Your task to perform on an android device: What is the news today? Image 0: 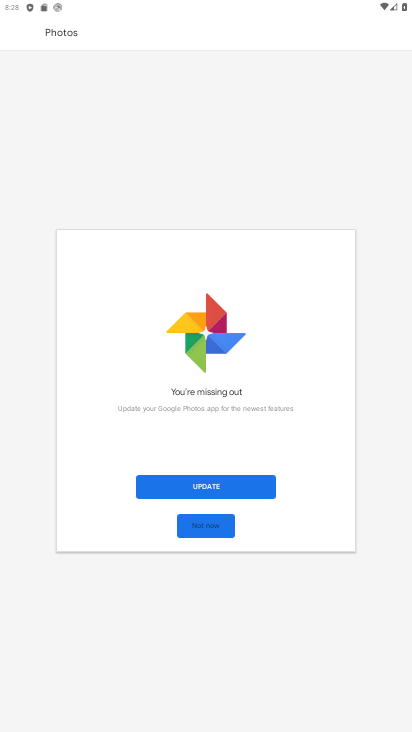
Step 0: press home button
Your task to perform on an android device: What is the news today? Image 1: 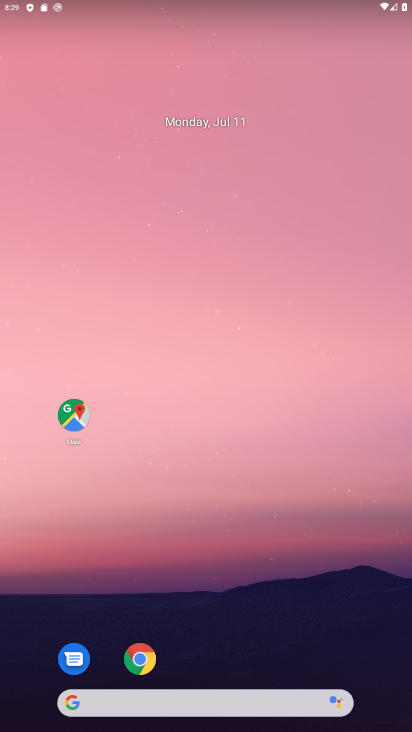
Step 1: click (158, 707)
Your task to perform on an android device: What is the news today? Image 2: 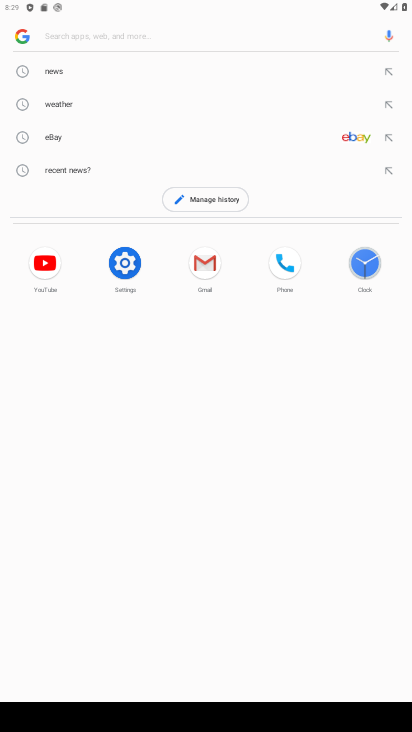
Step 2: type "What is the news today?"
Your task to perform on an android device: What is the news today? Image 3: 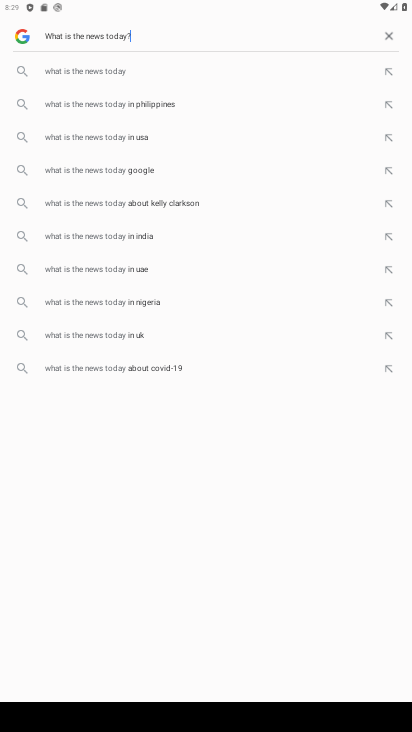
Step 3: type ""
Your task to perform on an android device: What is the news today? Image 4: 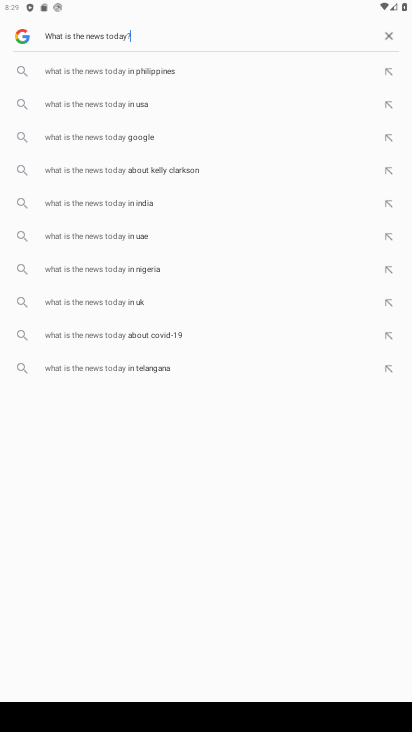
Step 4: click (177, 19)
Your task to perform on an android device: What is the news today? Image 5: 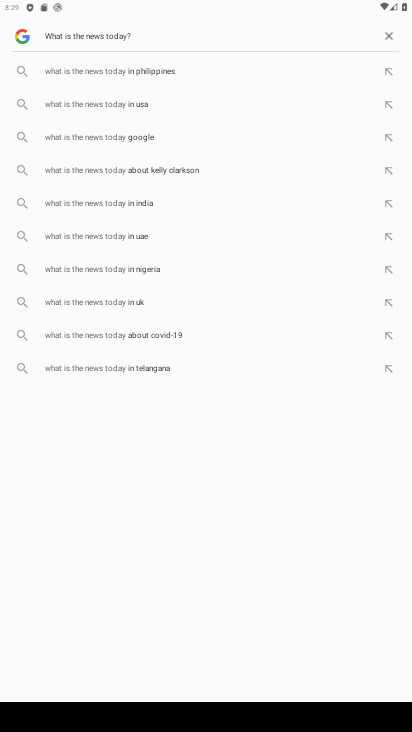
Step 5: task complete